Your task to perform on an android device: turn off picture-in-picture Image 0: 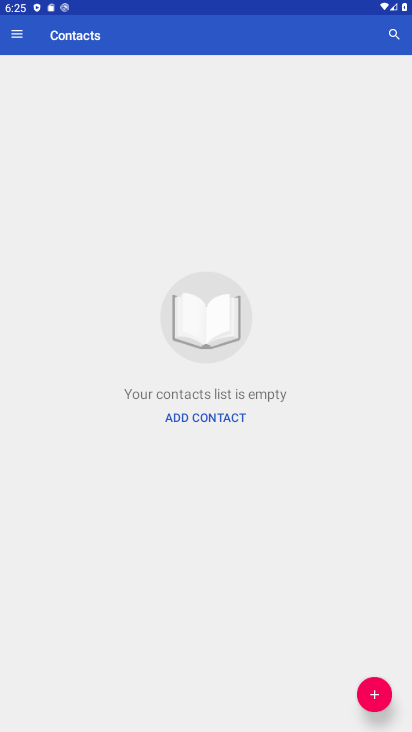
Step 0: press home button
Your task to perform on an android device: turn off picture-in-picture Image 1: 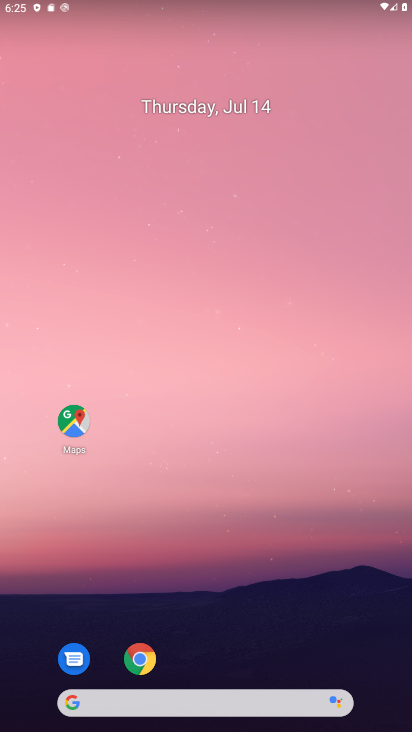
Step 1: drag from (228, 696) to (298, 36)
Your task to perform on an android device: turn off picture-in-picture Image 2: 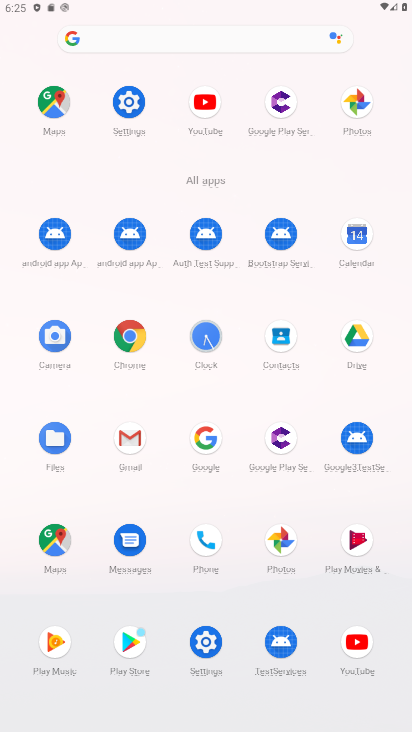
Step 2: click (124, 105)
Your task to perform on an android device: turn off picture-in-picture Image 3: 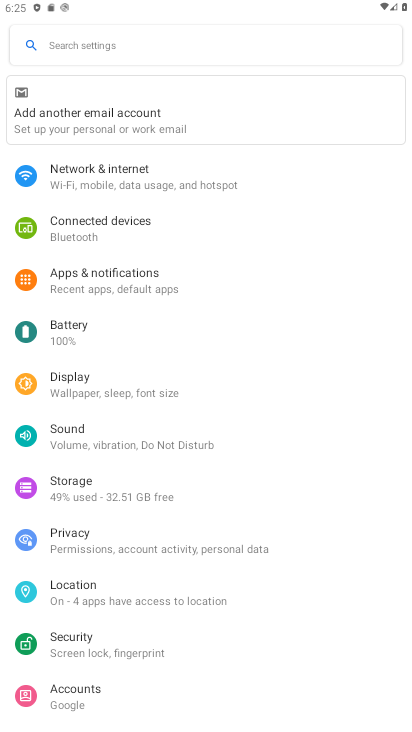
Step 3: click (122, 281)
Your task to perform on an android device: turn off picture-in-picture Image 4: 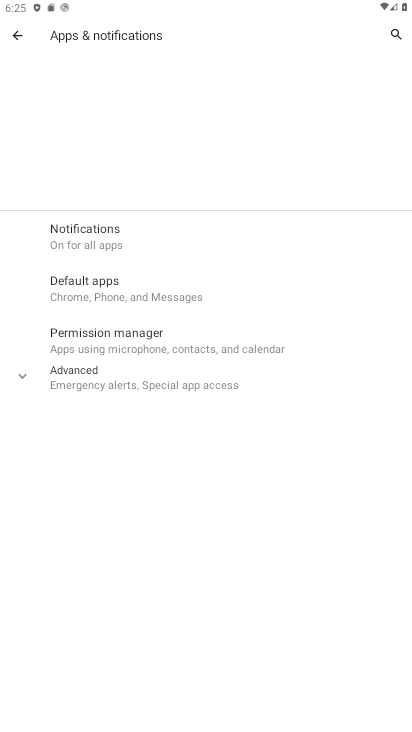
Step 4: click (153, 368)
Your task to perform on an android device: turn off picture-in-picture Image 5: 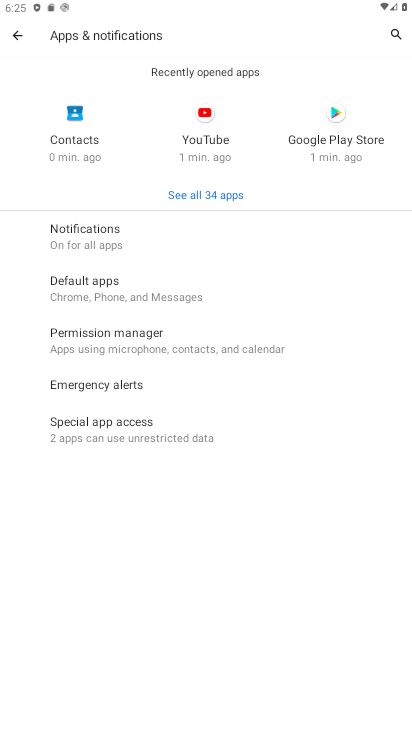
Step 5: click (137, 425)
Your task to perform on an android device: turn off picture-in-picture Image 6: 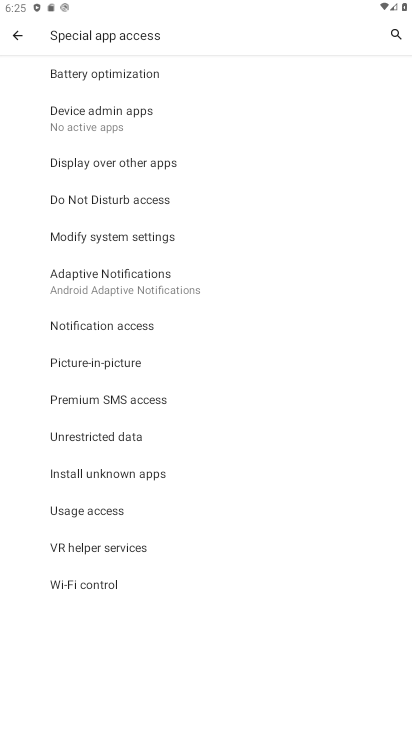
Step 6: click (114, 366)
Your task to perform on an android device: turn off picture-in-picture Image 7: 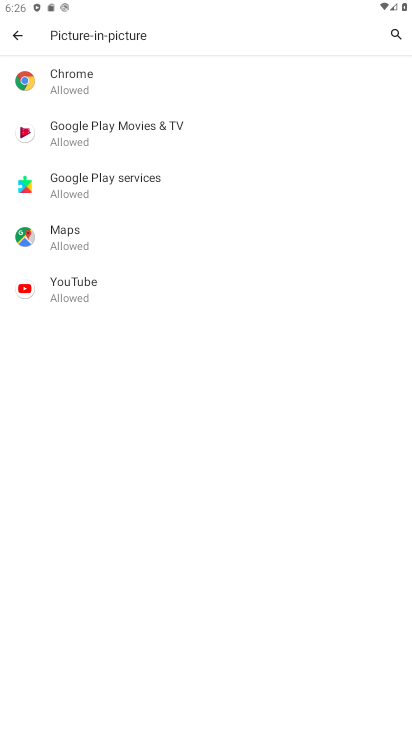
Step 7: click (86, 76)
Your task to perform on an android device: turn off picture-in-picture Image 8: 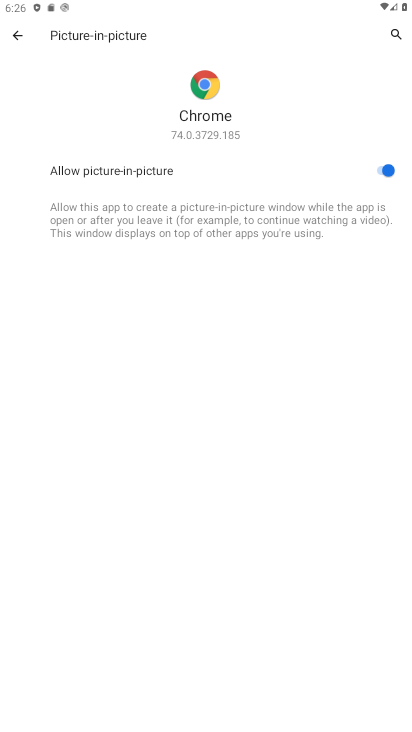
Step 8: click (379, 171)
Your task to perform on an android device: turn off picture-in-picture Image 9: 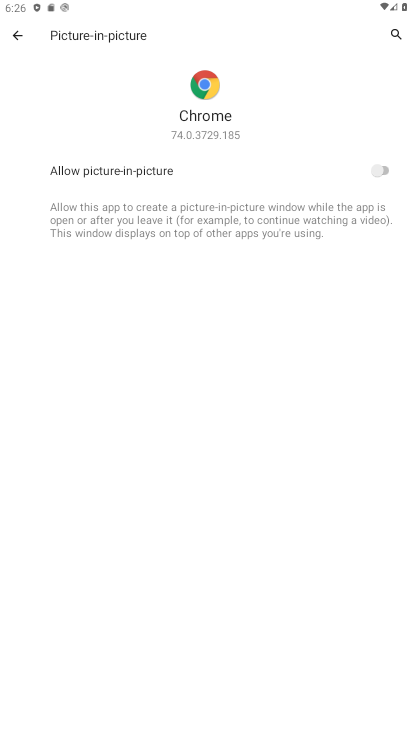
Step 9: press back button
Your task to perform on an android device: turn off picture-in-picture Image 10: 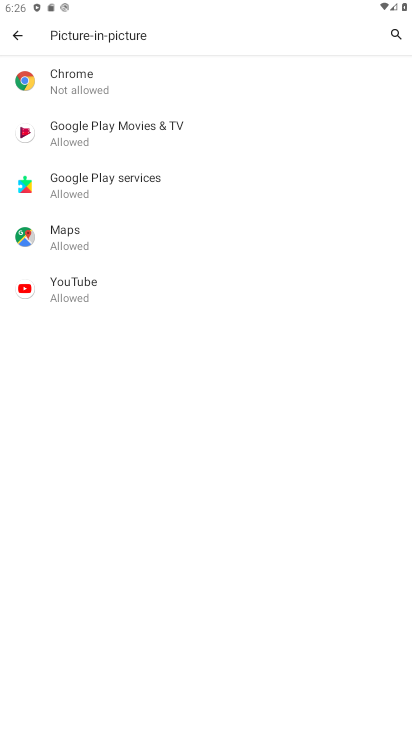
Step 10: click (111, 142)
Your task to perform on an android device: turn off picture-in-picture Image 11: 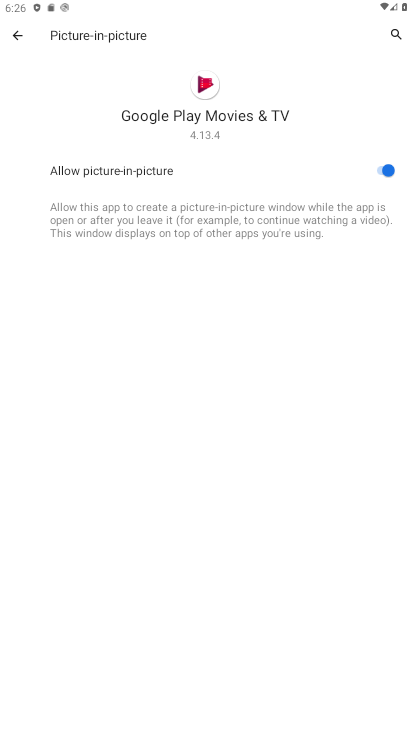
Step 11: click (390, 165)
Your task to perform on an android device: turn off picture-in-picture Image 12: 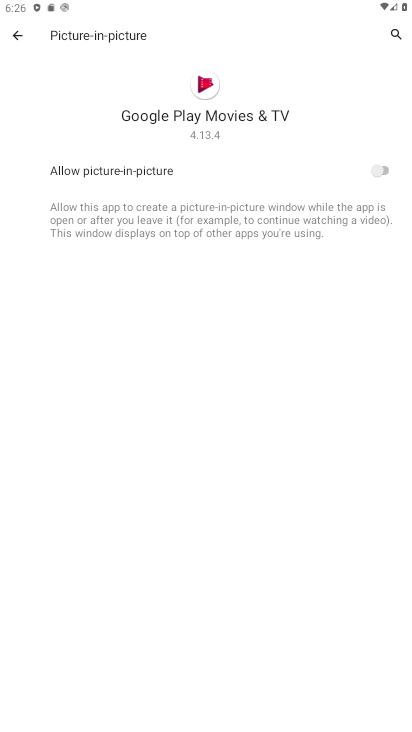
Step 12: press back button
Your task to perform on an android device: turn off picture-in-picture Image 13: 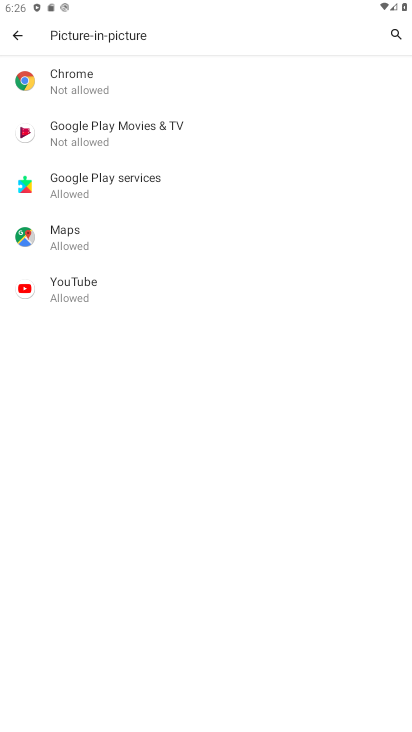
Step 13: click (130, 191)
Your task to perform on an android device: turn off picture-in-picture Image 14: 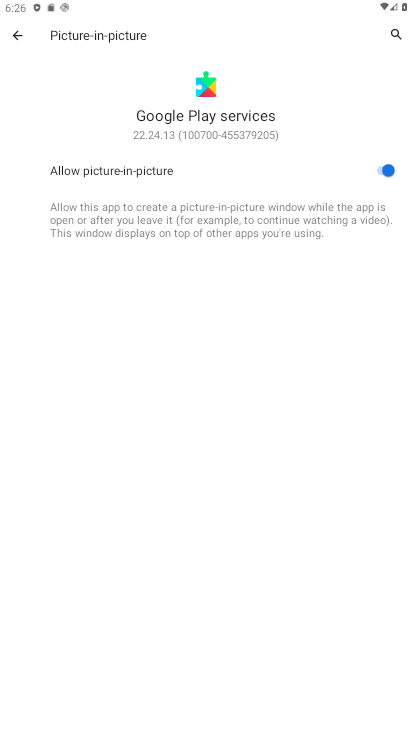
Step 14: click (391, 164)
Your task to perform on an android device: turn off picture-in-picture Image 15: 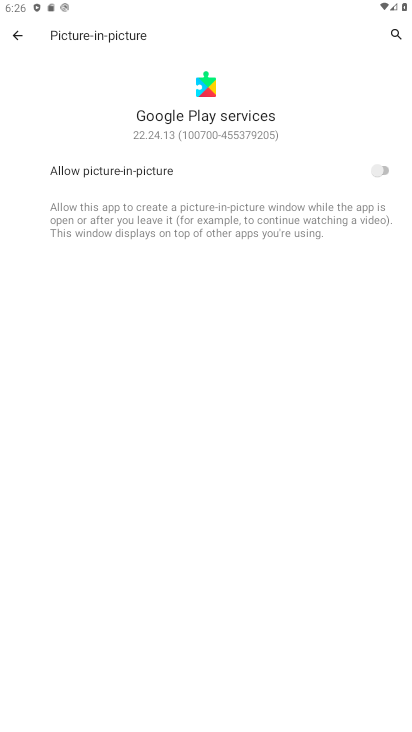
Step 15: press back button
Your task to perform on an android device: turn off picture-in-picture Image 16: 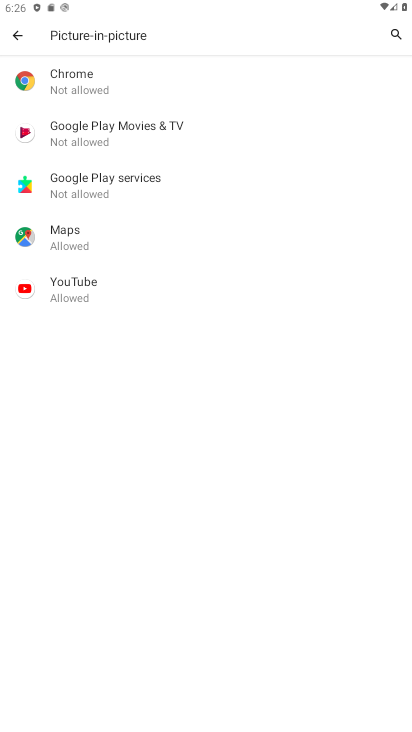
Step 16: click (78, 223)
Your task to perform on an android device: turn off picture-in-picture Image 17: 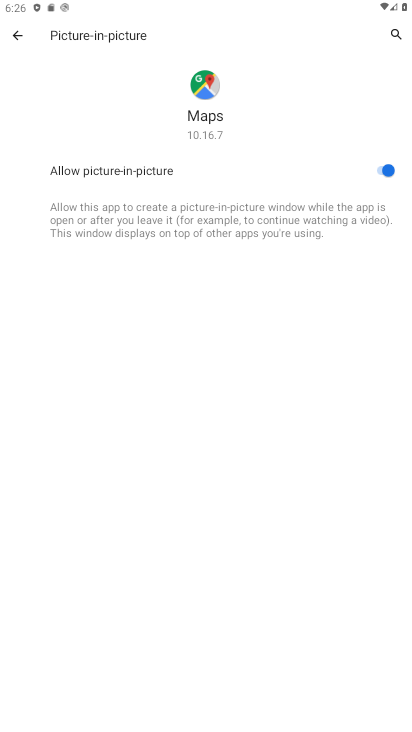
Step 17: click (388, 176)
Your task to perform on an android device: turn off picture-in-picture Image 18: 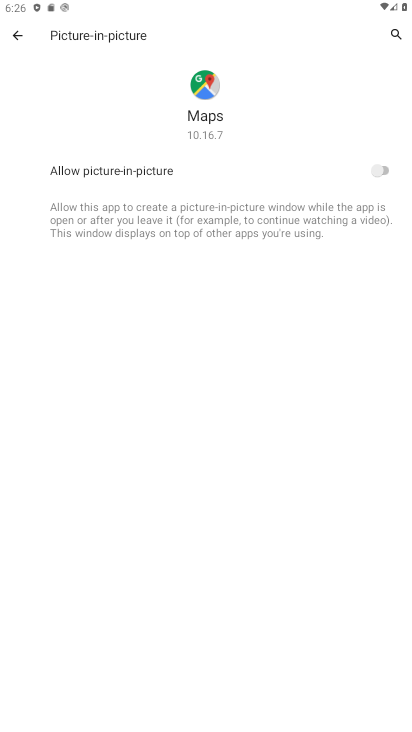
Step 18: press back button
Your task to perform on an android device: turn off picture-in-picture Image 19: 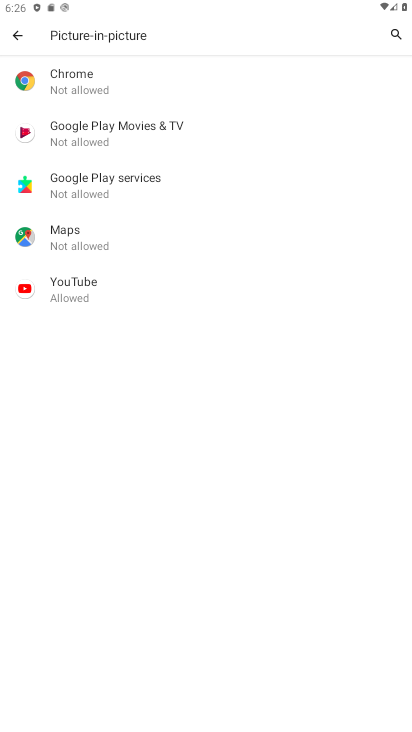
Step 19: click (121, 291)
Your task to perform on an android device: turn off picture-in-picture Image 20: 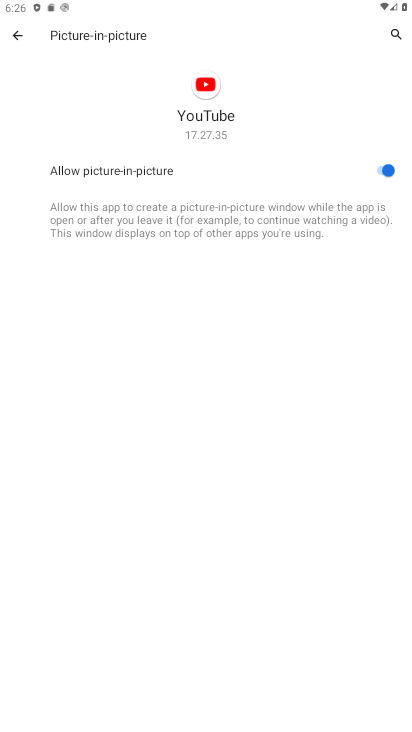
Step 20: click (386, 166)
Your task to perform on an android device: turn off picture-in-picture Image 21: 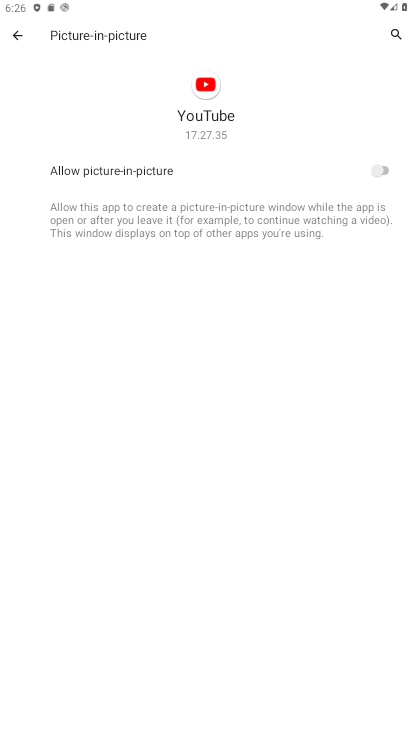
Step 21: task complete